Your task to perform on an android device: See recent photos Image 0: 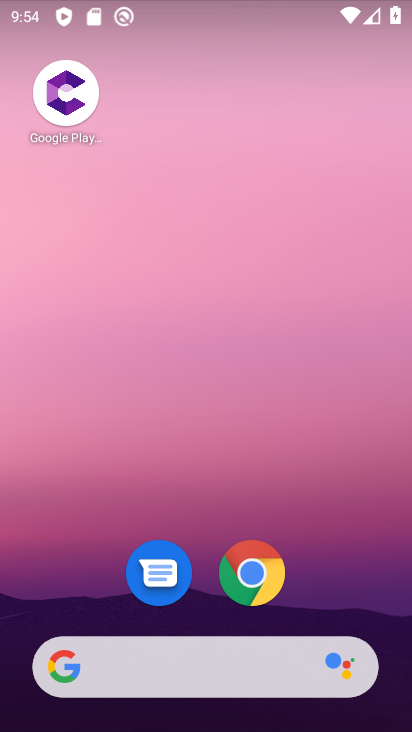
Step 0: drag from (318, 614) to (346, 235)
Your task to perform on an android device: See recent photos Image 1: 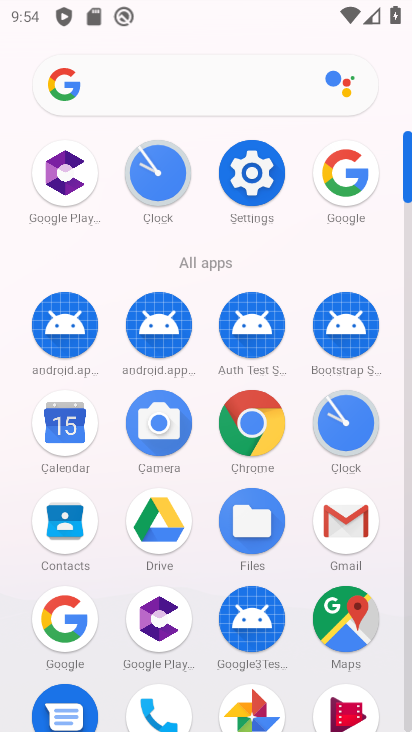
Step 1: click (254, 715)
Your task to perform on an android device: See recent photos Image 2: 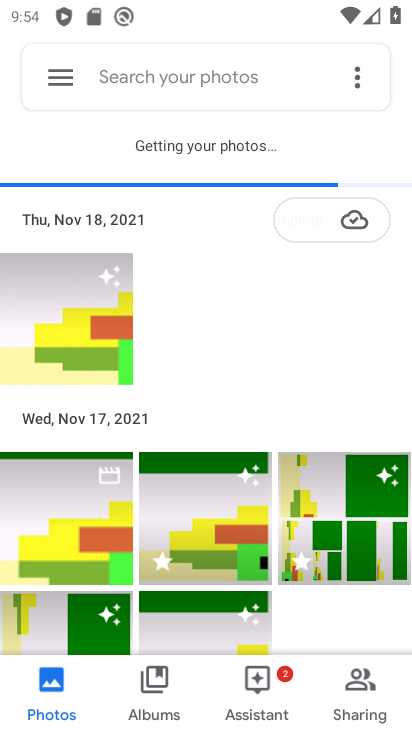
Step 2: task complete